Your task to perform on an android device: Open privacy settings Image 0: 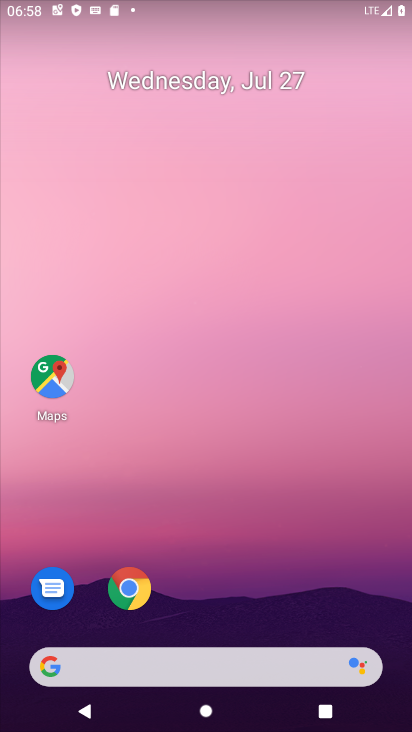
Step 0: drag from (177, 660) to (137, 80)
Your task to perform on an android device: Open privacy settings Image 1: 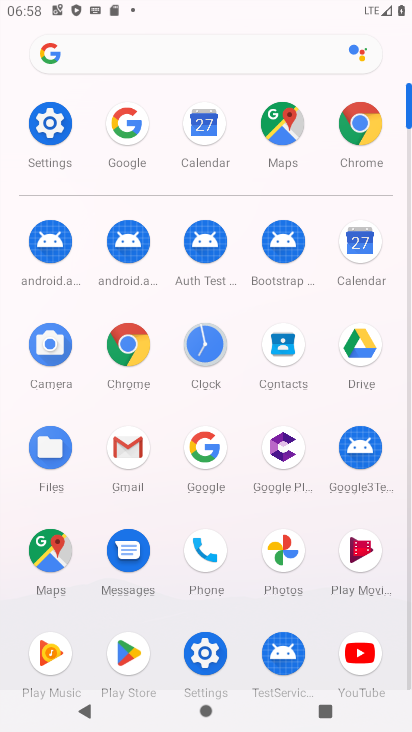
Step 1: click (50, 108)
Your task to perform on an android device: Open privacy settings Image 2: 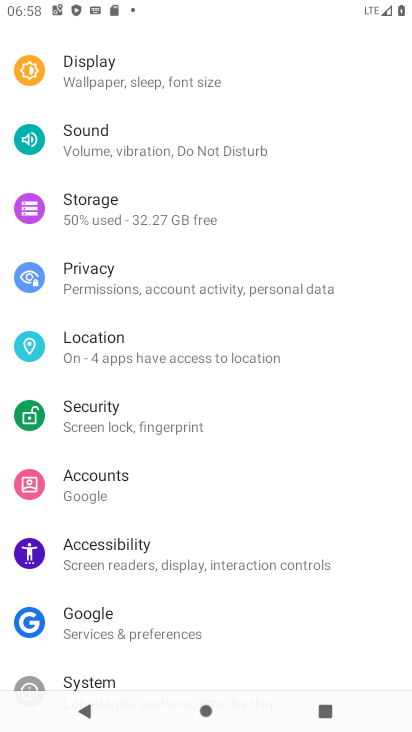
Step 2: click (91, 283)
Your task to perform on an android device: Open privacy settings Image 3: 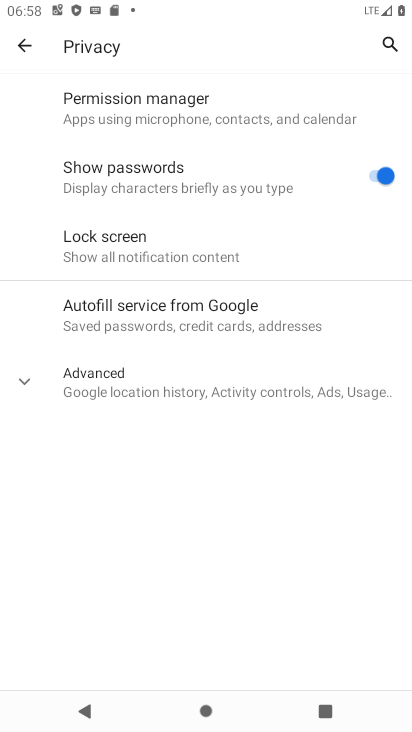
Step 3: task complete